Your task to perform on an android device: Show me popular games on the Play Store Image 0: 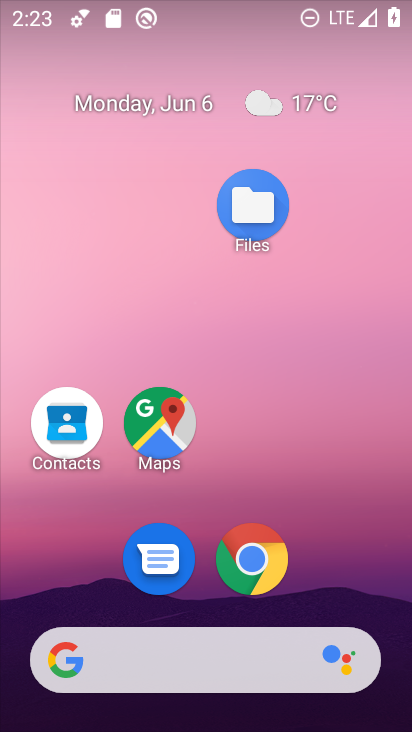
Step 0: drag from (327, 613) to (281, 146)
Your task to perform on an android device: Show me popular games on the Play Store Image 1: 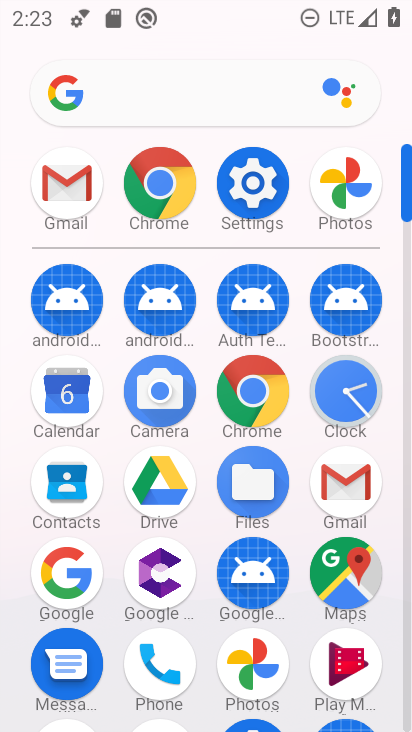
Step 1: drag from (158, 543) to (175, 214)
Your task to perform on an android device: Show me popular games on the Play Store Image 2: 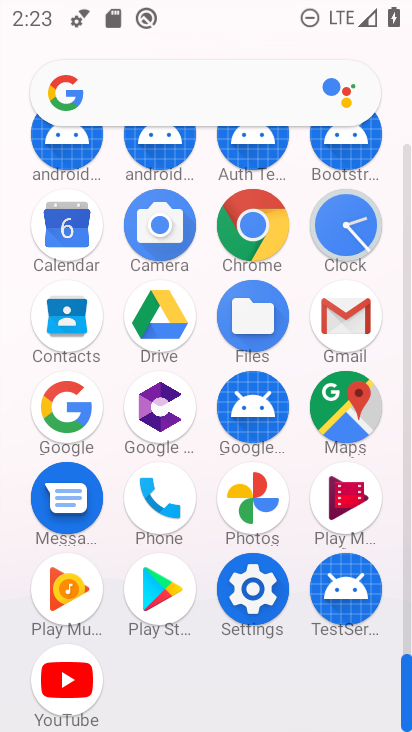
Step 2: click (185, 600)
Your task to perform on an android device: Show me popular games on the Play Store Image 3: 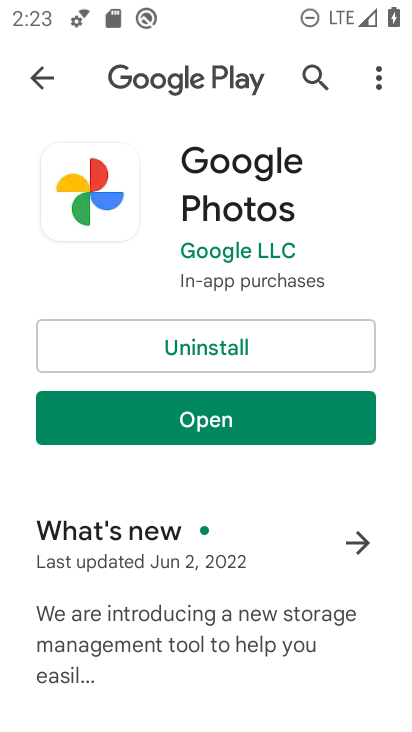
Step 3: click (38, 74)
Your task to perform on an android device: Show me popular games on the Play Store Image 4: 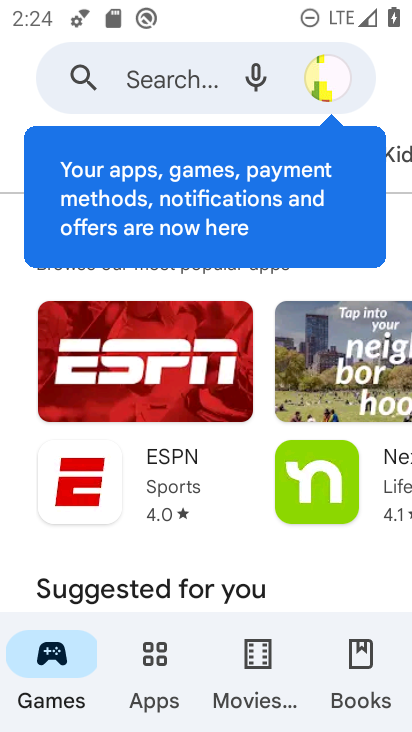
Step 4: task complete